Your task to perform on an android device: open a new tab in the chrome app Image 0: 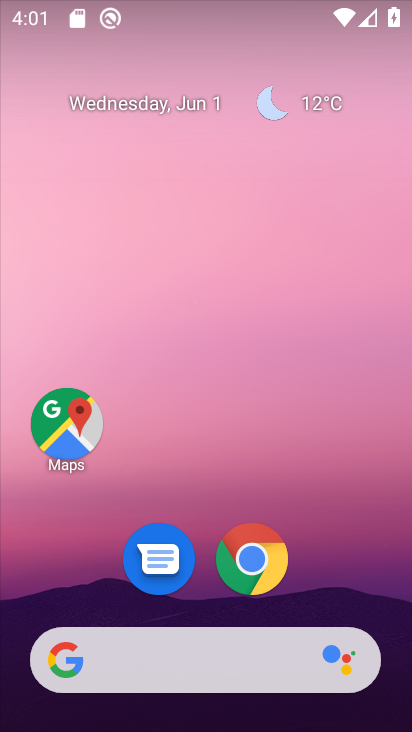
Step 0: click (256, 550)
Your task to perform on an android device: open a new tab in the chrome app Image 1: 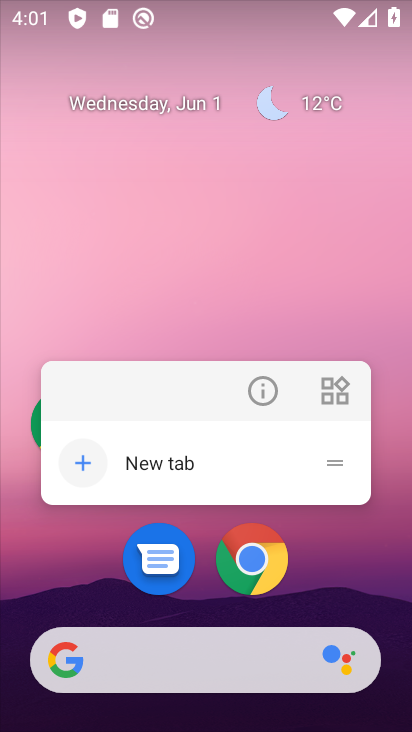
Step 1: click (257, 551)
Your task to perform on an android device: open a new tab in the chrome app Image 2: 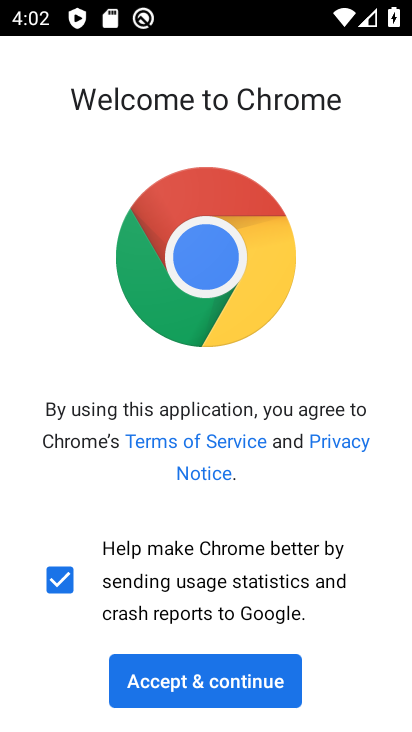
Step 2: click (155, 681)
Your task to perform on an android device: open a new tab in the chrome app Image 3: 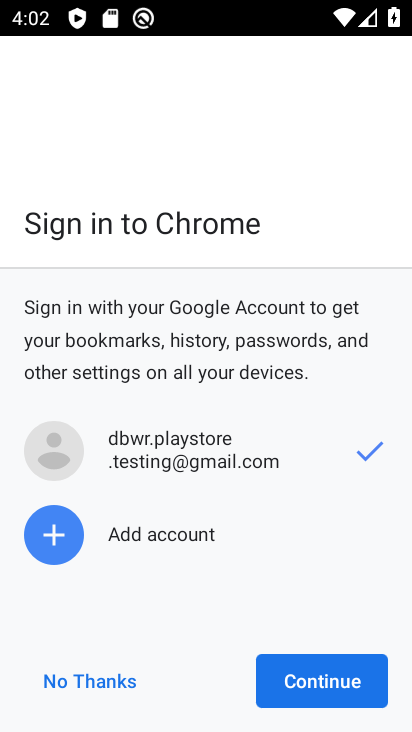
Step 3: click (299, 673)
Your task to perform on an android device: open a new tab in the chrome app Image 4: 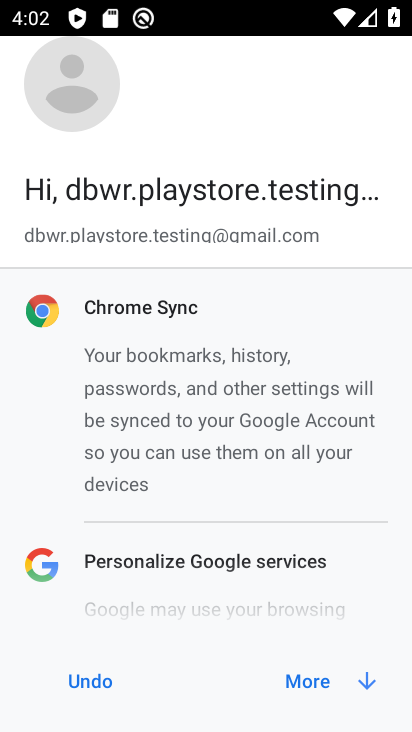
Step 4: click (349, 691)
Your task to perform on an android device: open a new tab in the chrome app Image 5: 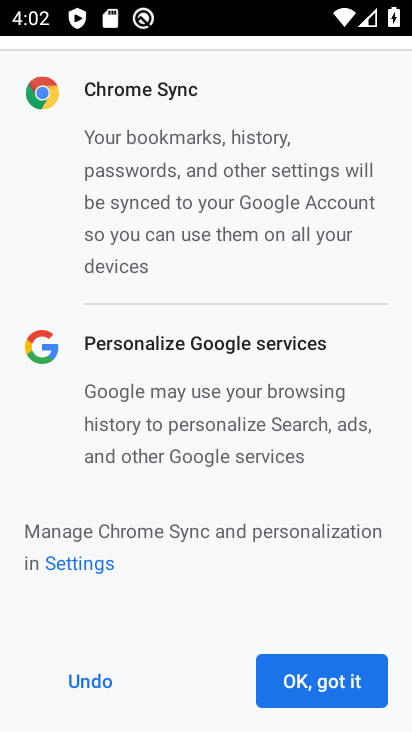
Step 5: click (349, 691)
Your task to perform on an android device: open a new tab in the chrome app Image 6: 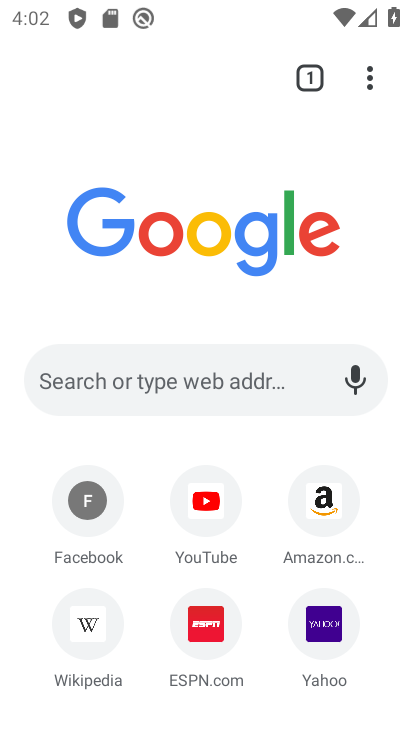
Step 6: click (354, 77)
Your task to perform on an android device: open a new tab in the chrome app Image 7: 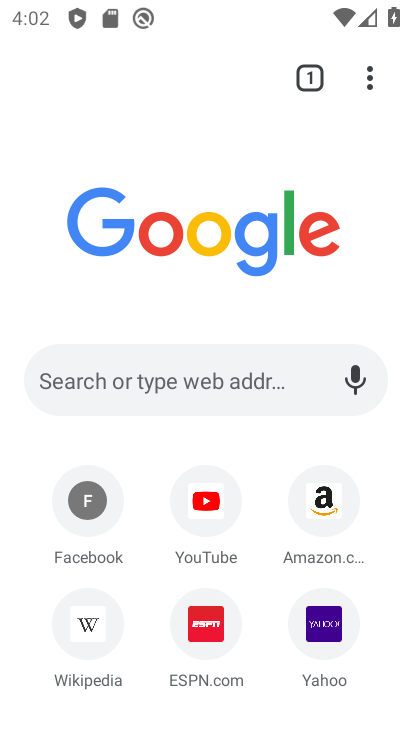
Step 7: click (392, 76)
Your task to perform on an android device: open a new tab in the chrome app Image 8: 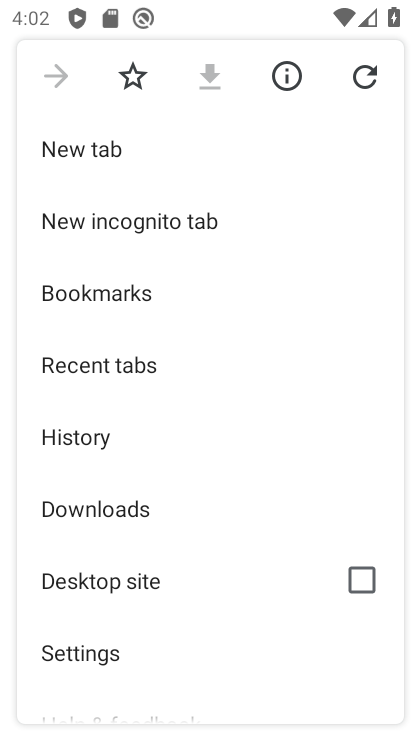
Step 8: click (59, 142)
Your task to perform on an android device: open a new tab in the chrome app Image 9: 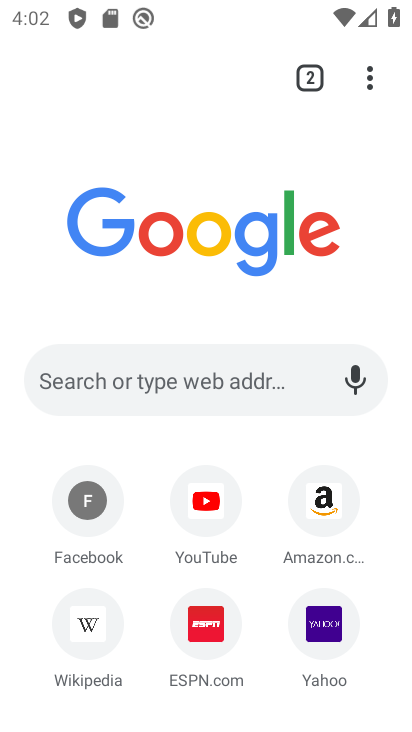
Step 9: task complete